Your task to perform on an android device: change the clock display to analog Image 0: 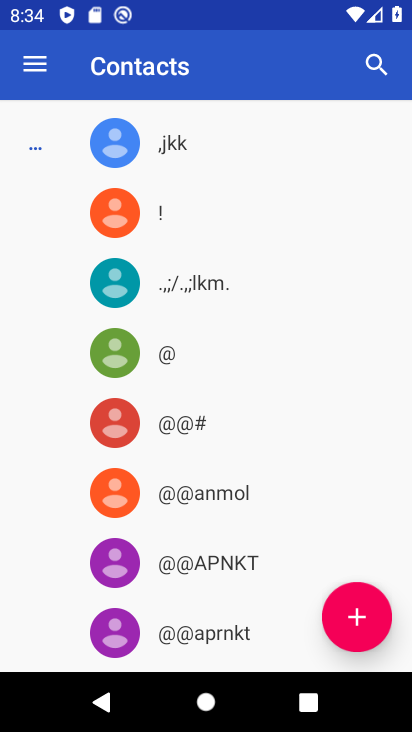
Step 0: press home button
Your task to perform on an android device: change the clock display to analog Image 1: 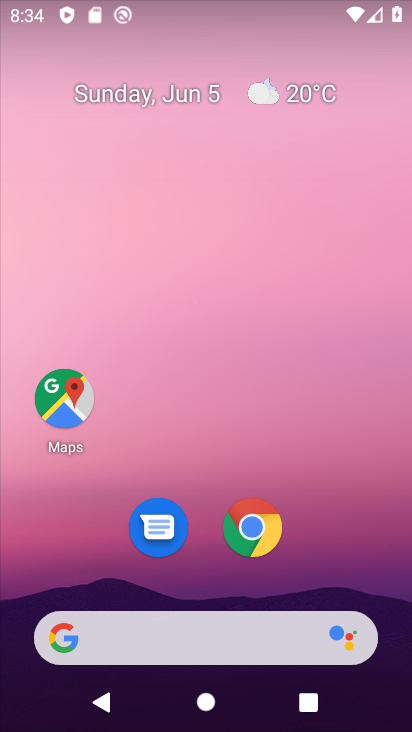
Step 1: drag from (244, 725) to (244, 102)
Your task to perform on an android device: change the clock display to analog Image 2: 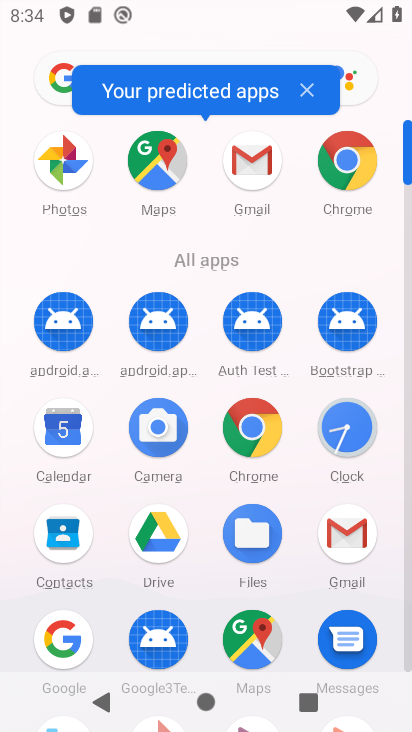
Step 2: click (351, 429)
Your task to perform on an android device: change the clock display to analog Image 3: 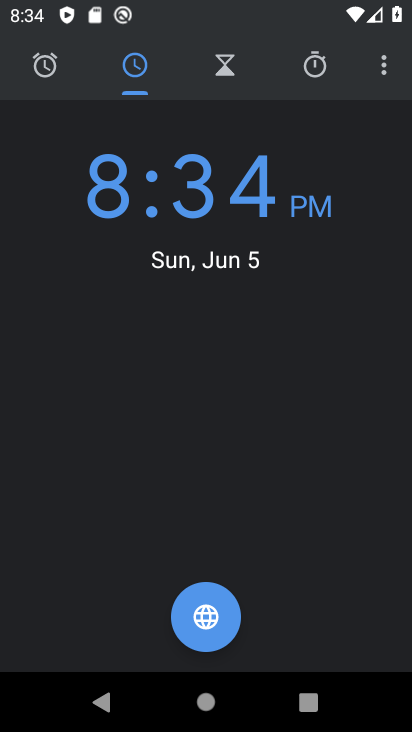
Step 3: click (387, 72)
Your task to perform on an android device: change the clock display to analog Image 4: 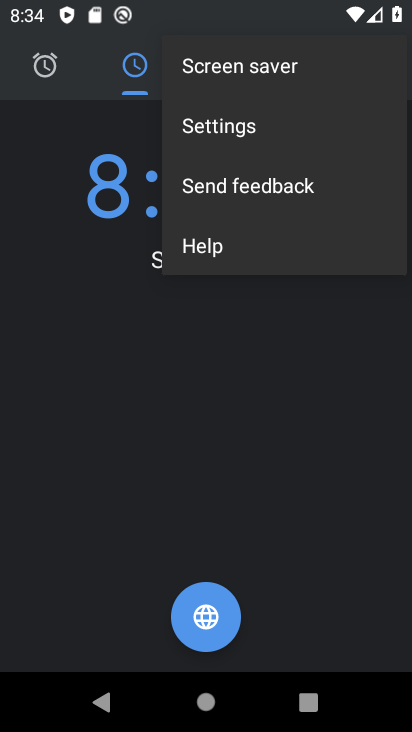
Step 4: click (238, 126)
Your task to perform on an android device: change the clock display to analog Image 5: 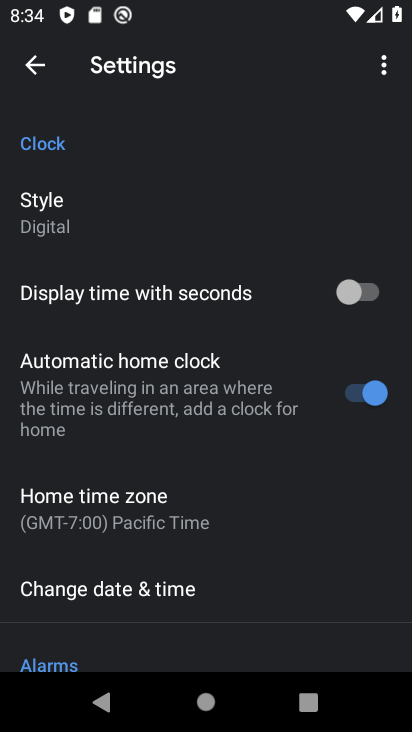
Step 5: click (54, 226)
Your task to perform on an android device: change the clock display to analog Image 6: 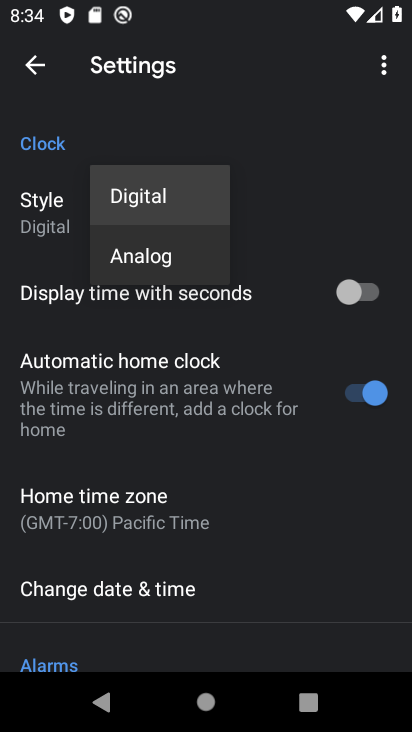
Step 6: click (147, 251)
Your task to perform on an android device: change the clock display to analog Image 7: 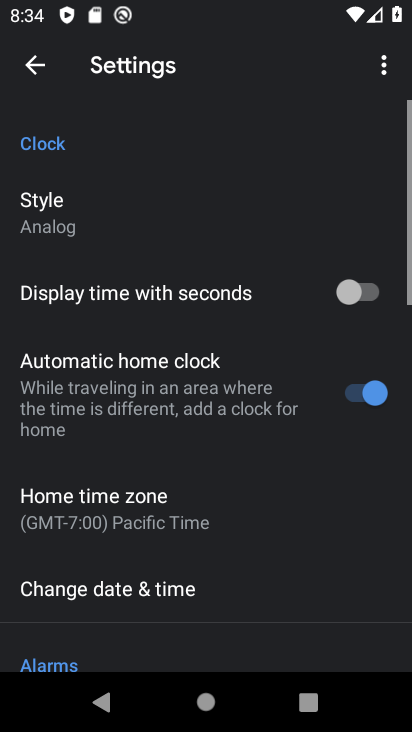
Step 7: task complete